Your task to perform on an android device: Search for seafood restaurants on Google Maps Image 0: 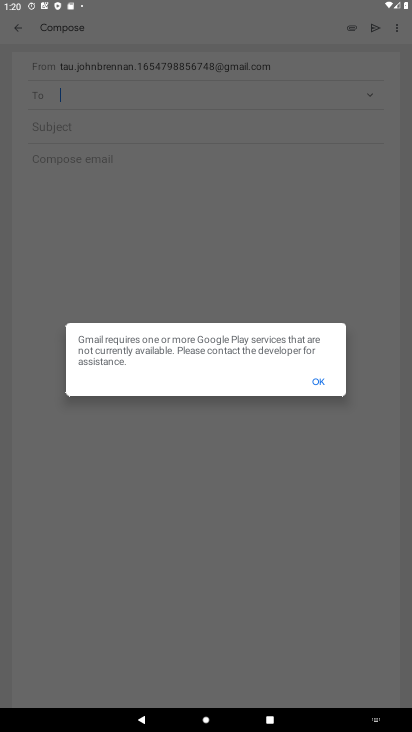
Step 0: press home button
Your task to perform on an android device: Search for seafood restaurants on Google Maps Image 1: 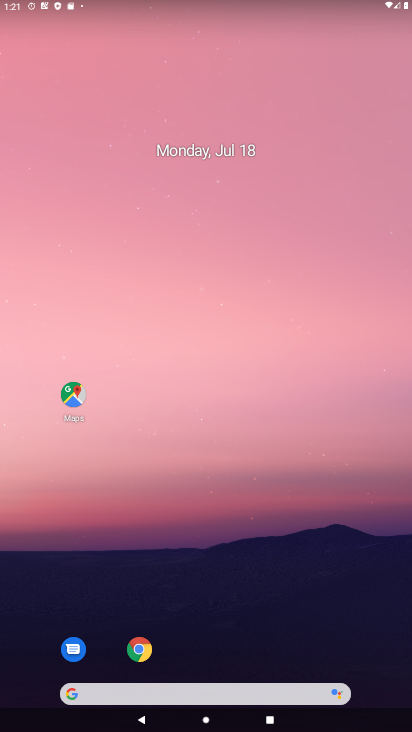
Step 1: drag from (216, 568) to (132, 132)
Your task to perform on an android device: Search for seafood restaurants on Google Maps Image 2: 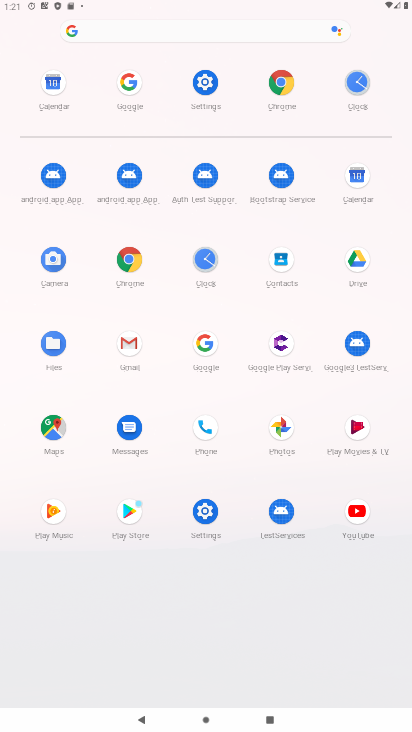
Step 2: click (41, 431)
Your task to perform on an android device: Search for seafood restaurants on Google Maps Image 3: 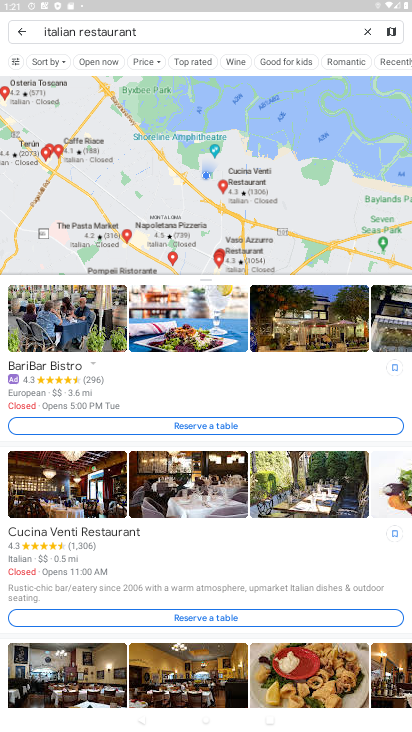
Step 3: click (25, 27)
Your task to perform on an android device: Search for seafood restaurants on Google Maps Image 4: 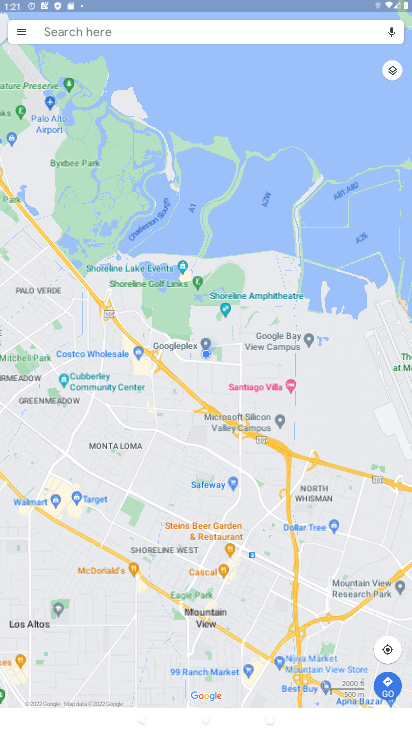
Step 4: click (98, 35)
Your task to perform on an android device: Search for seafood restaurants on Google Maps Image 5: 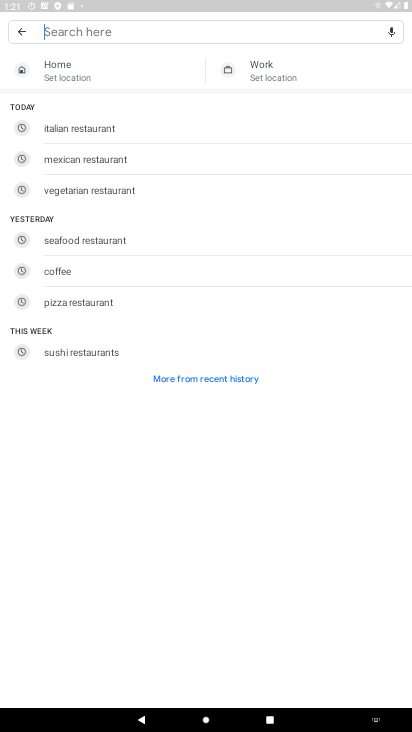
Step 5: click (108, 229)
Your task to perform on an android device: Search for seafood restaurants on Google Maps Image 6: 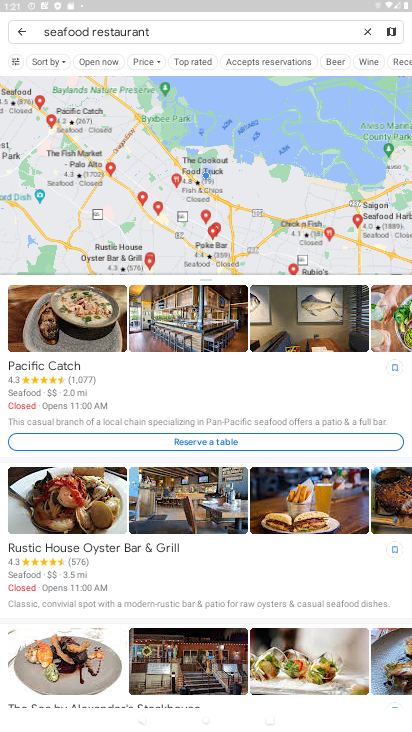
Step 6: task complete